Your task to perform on an android device: What's the weather? Image 0: 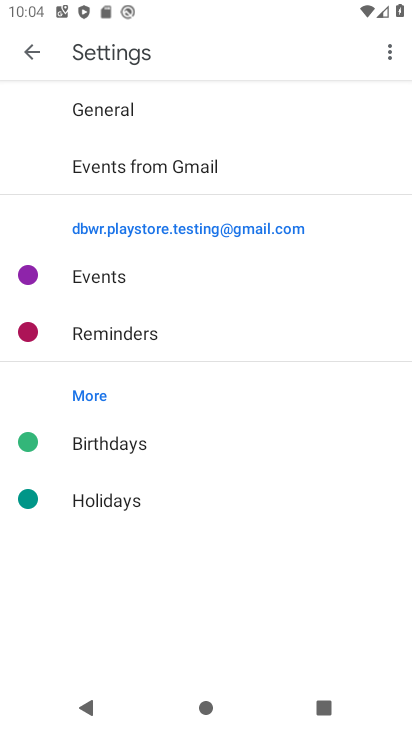
Step 0: press home button
Your task to perform on an android device: What's the weather? Image 1: 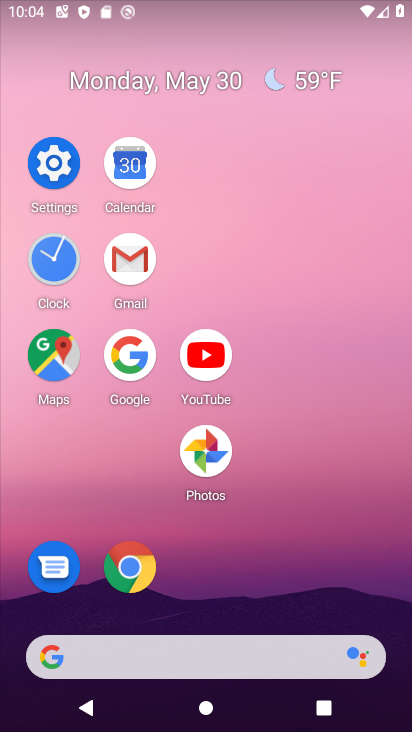
Step 1: click (135, 359)
Your task to perform on an android device: What's the weather? Image 2: 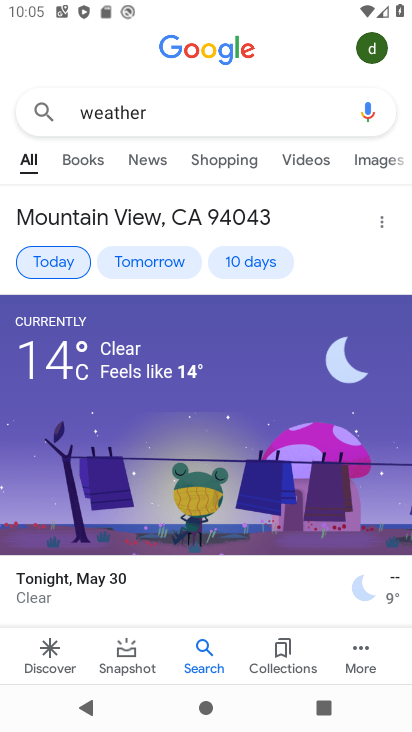
Step 2: task complete